Your task to perform on an android device: Open the stopwatch Image 0: 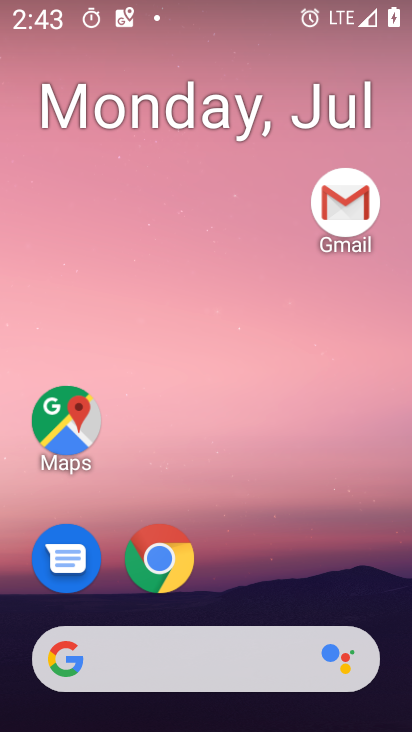
Step 0: drag from (346, 566) to (368, 79)
Your task to perform on an android device: Open the stopwatch Image 1: 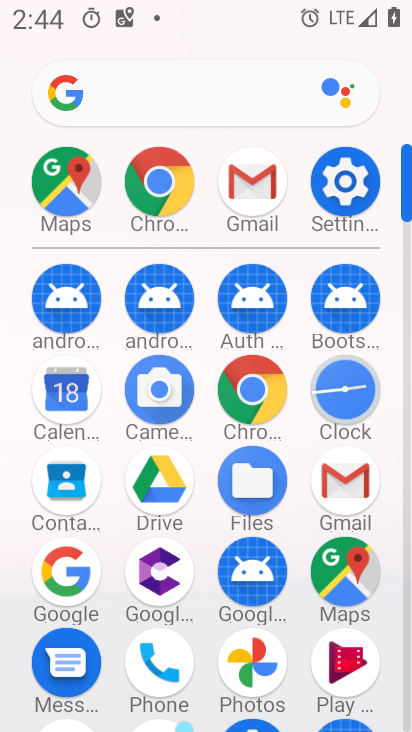
Step 1: click (356, 389)
Your task to perform on an android device: Open the stopwatch Image 2: 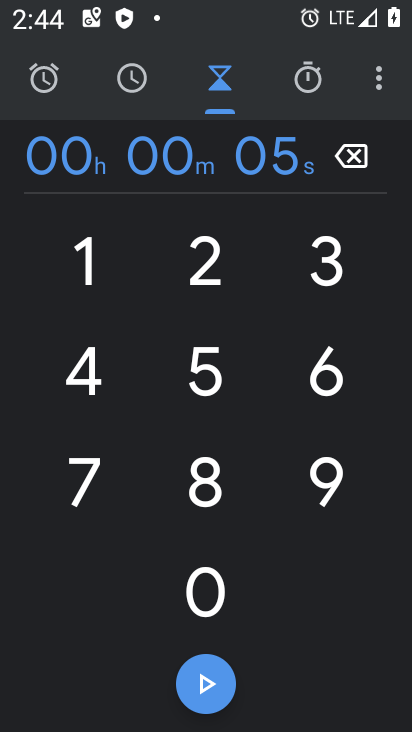
Step 2: click (301, 85)
Your task to perform on an android device: Open the stopwatch Image 3: 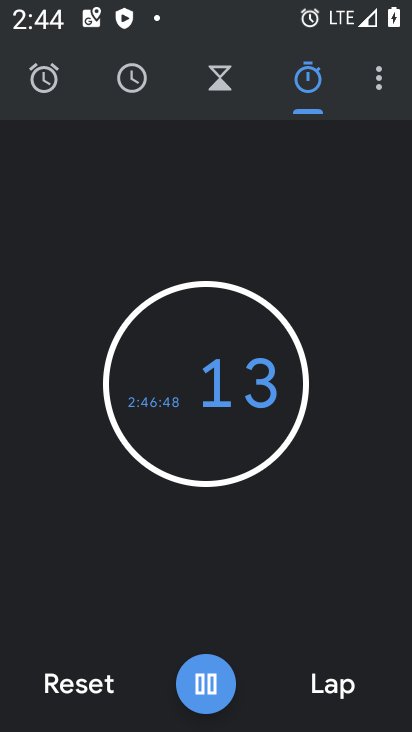
Step 3: task complete